Your task to perform on an android device: move a message to another label in the gmail app Image 0: 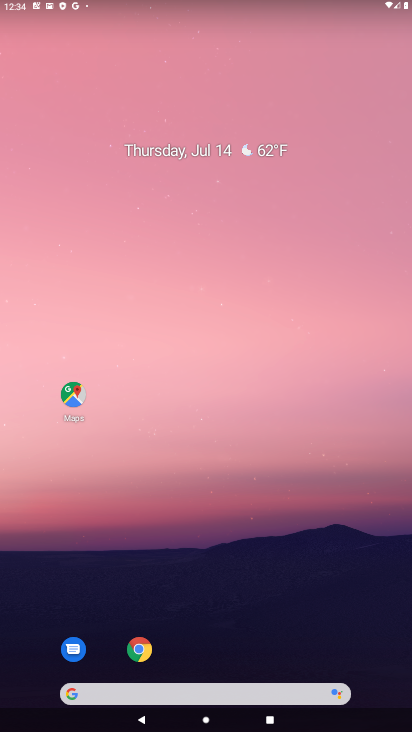
Step 0: drag from (361, 659) to (242, 61)
Your task to perform on an android device: move a message to another label in the gmail app Image 1: 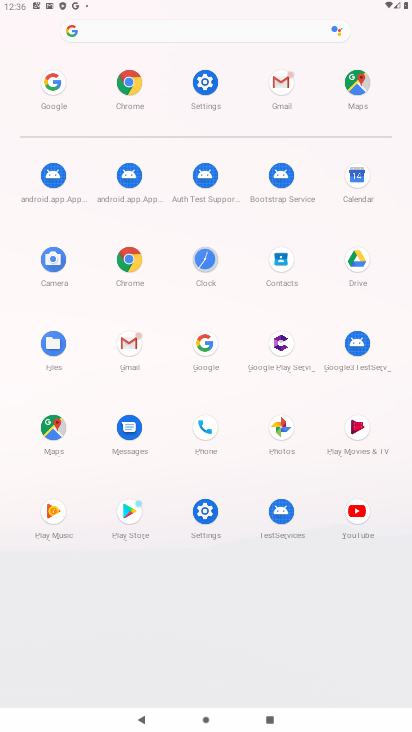
Step 1: click (121, 342)
Your task to perform on an android device: move a message to another label in the gmail app Image 2: 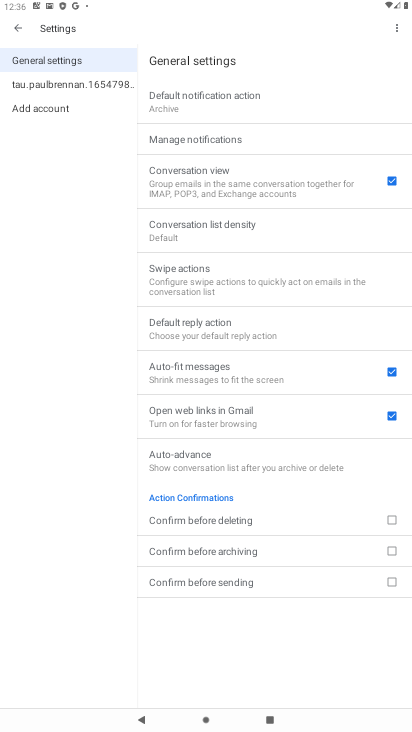
Step 2: task complete